Your task to perform on an android device: Open Google Maps Image 0: 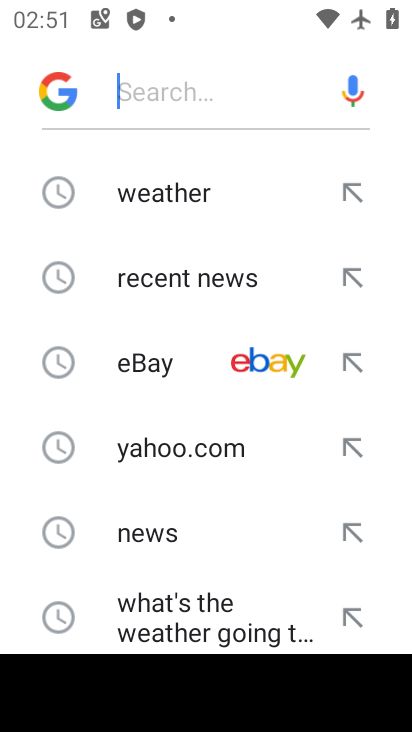
Step 0: press home button
Your task to perform on an android device: Open Google Maps Image 1: 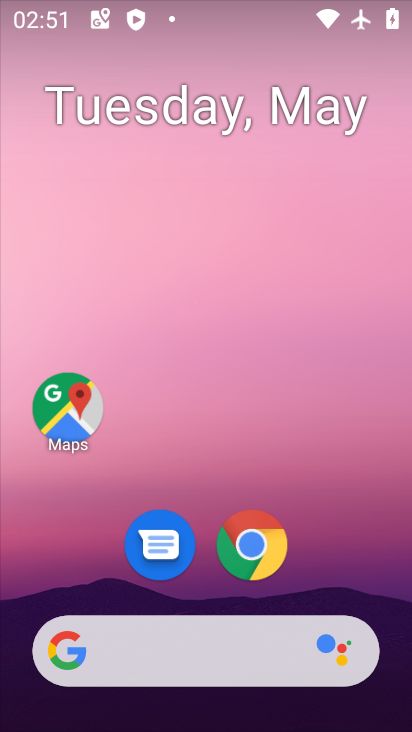
Step 1: click (68, 405)
Your task to perform on an android device: Open Google Maps Image 2: 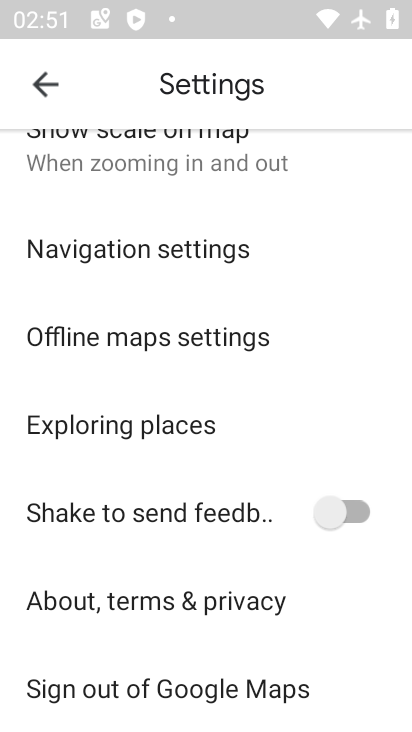
Step 2: task complete